Your task to perform on an android device: toggle data saver in the chrome app Image 0: 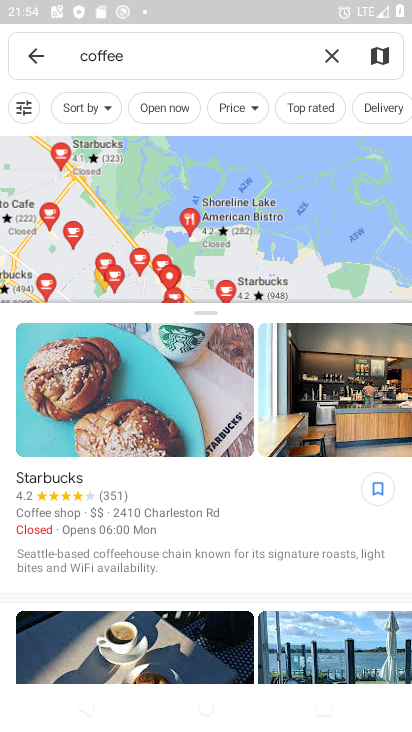
Step 0: press home button
Your task to perform on an android device: toggle data saver in the chrome app Image 1: 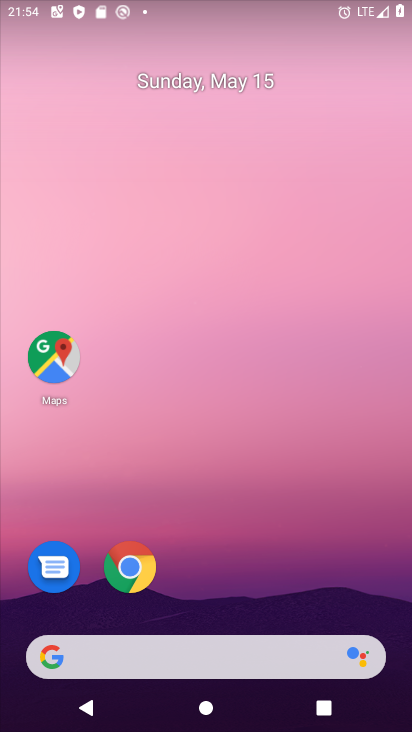
Step 1: click (129, 575)
Your task to perform on an android device: toggle data saver in the chrome app Image 2: 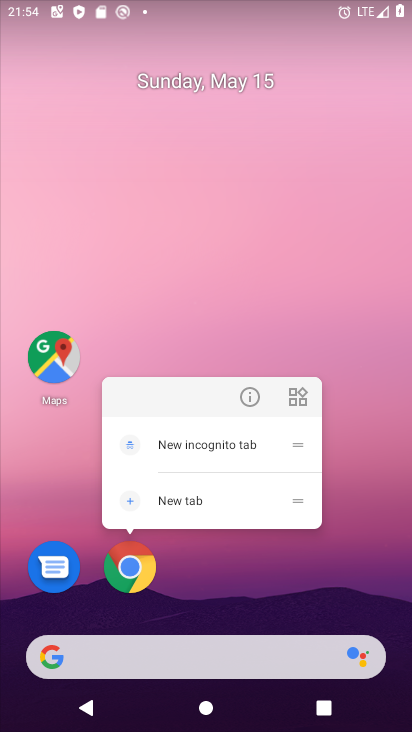
Step 2: click (129, 575)
Your task to perform on an android device: toggle data saver in the chrome app Image 3: 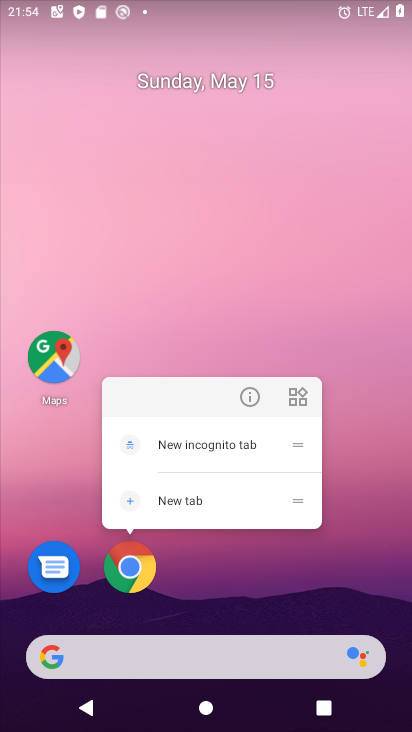
Step 3: click (129, 575)
Your task to perform on an android device: toggle data saver in the chrome app Image 4: 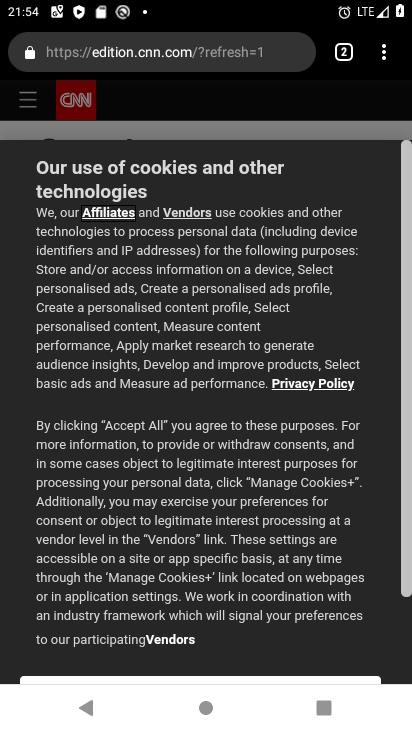
Step 4: click (390, 46)
Your task to perform on an android device: toggle data saver in the chrome app Image 5: 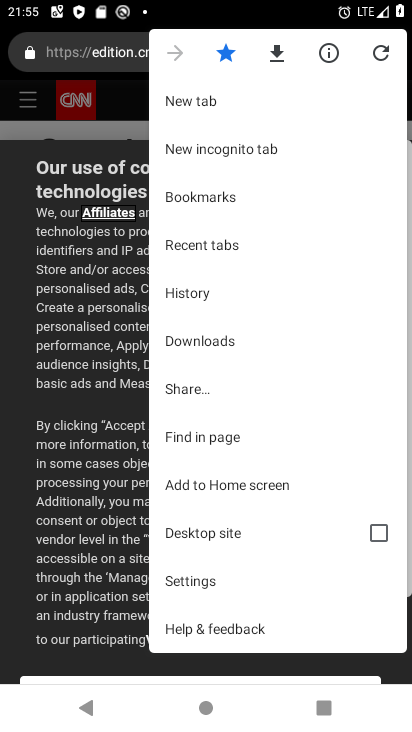
Step 5: click (209, 579)
Your task to perform on an android device: toggle data saver in the chrome app Image 6: 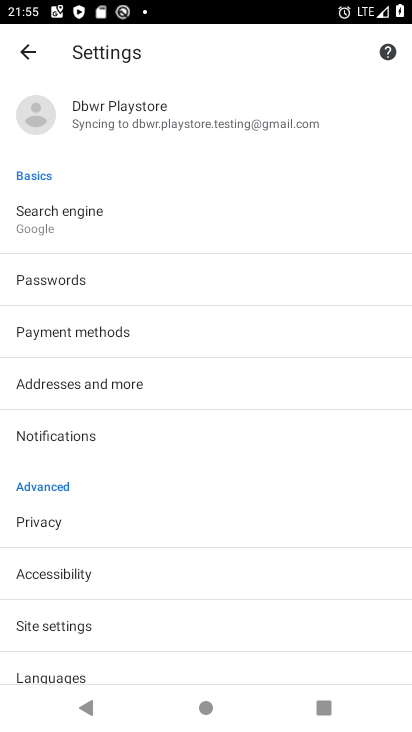
Step 6: drag from (118, 652) to (140, 86)
Your task to perform on an android device: toggle data saver in the chrome app Image 7: 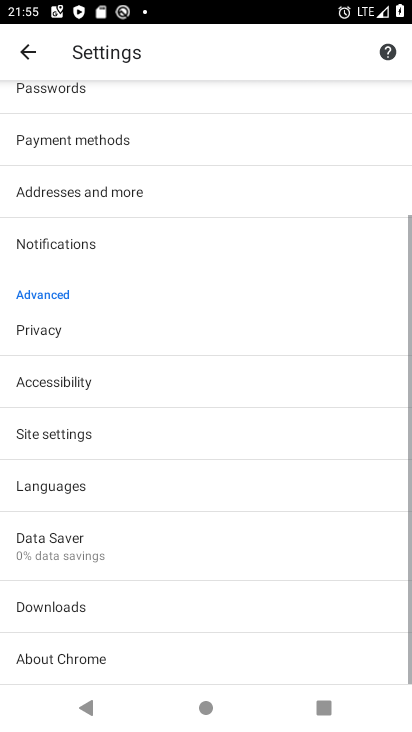
Step 7: click (86, 549)
Your task to perform on an android device: toggle data saver in the chrome app Image 8: 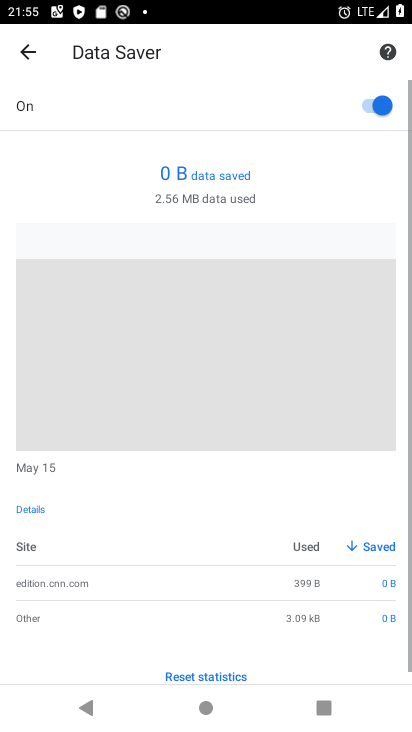
Step 8: click (372, 97)
Your task to perform on an android device: toggle data saver in the chrome app Image 9: 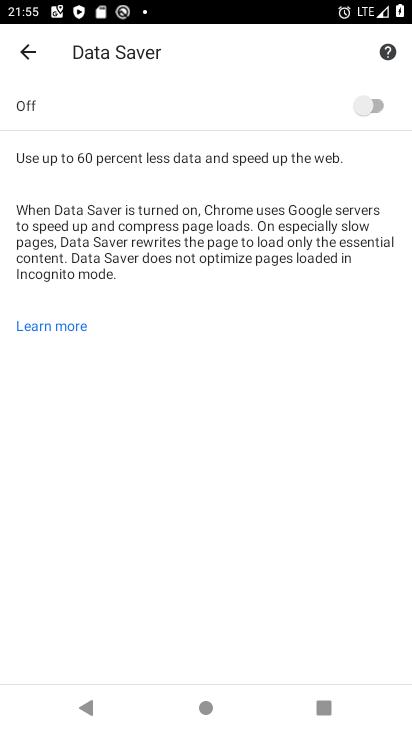
Step 9: task complete